Your task to perform on an android device: Go to wifi settings Image 0: 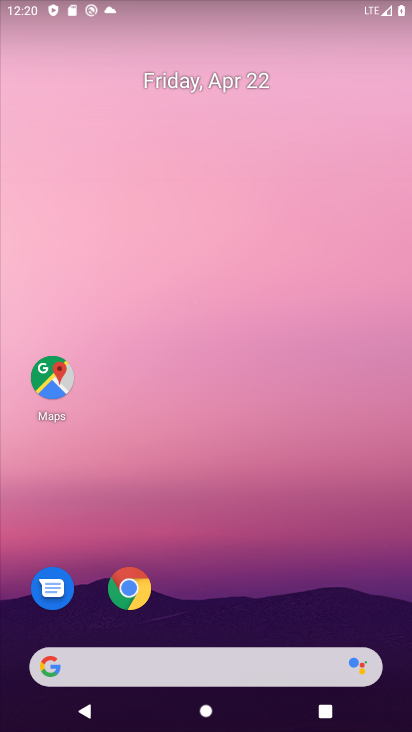
Step 0: drag from (257, 696) to (230, 110)
Your task to perform on an android device: Go to wifi settings Image 1: 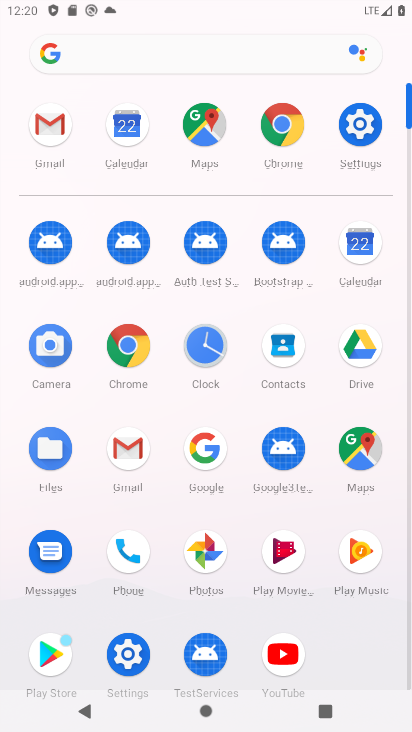
Step 1: click (364, 113)
Your task to perform on an android device: Go to wifi settings Image 2: 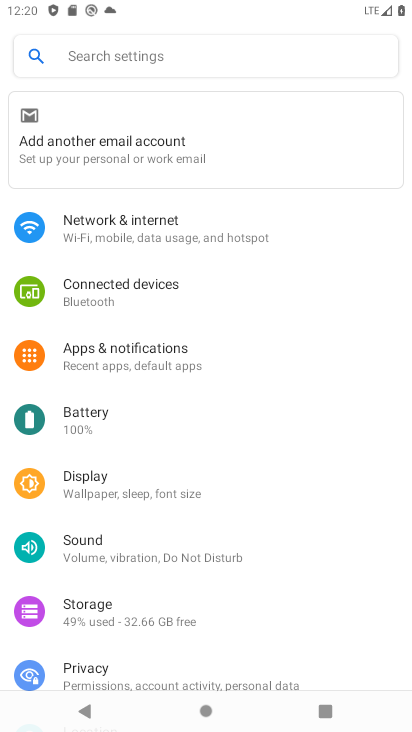
Step 2: click (138, 221)
Your task to perform on an android device: Go to wifi settings Image 3: 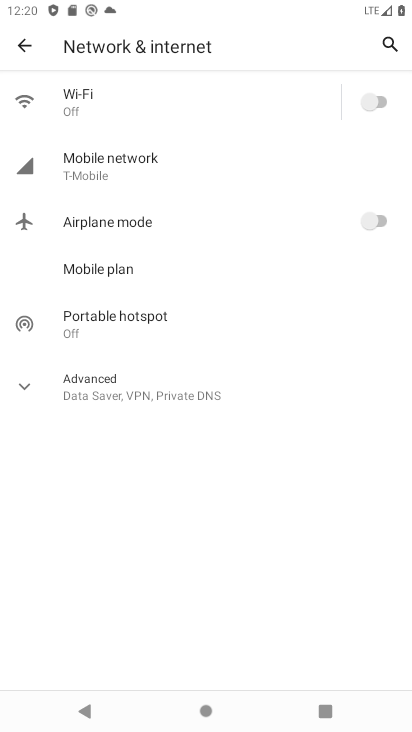
Step 3: click (125, 115)
Your task to perform on an android device: Go to wifi settings Image 4: 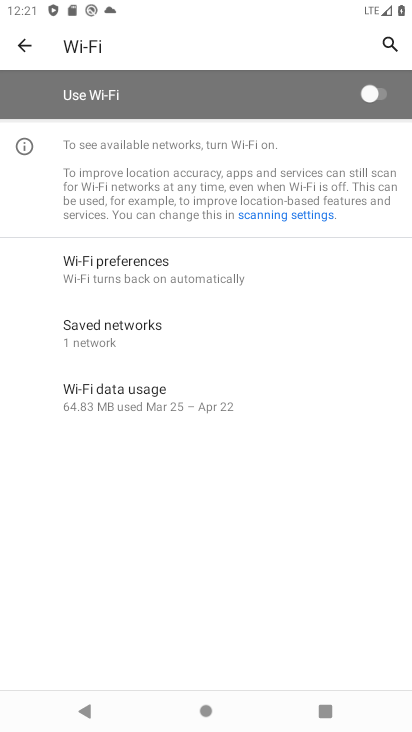
Step 4: click (368, 100)
Your task to perform on an android device: Go to wifi settings Image 5: 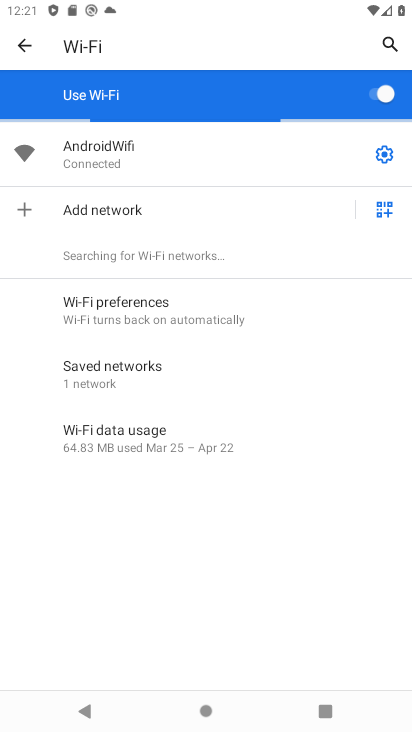
Step 5: task complete